Your task to perform on an android device: change the clock style Image 0: 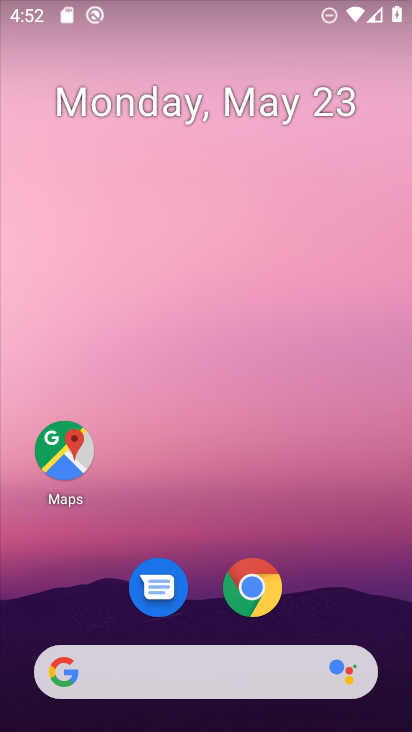
Step 0: drag from (216, 628) to (261, 25)
Your task to perform on an android device: change the clock style Image 1: 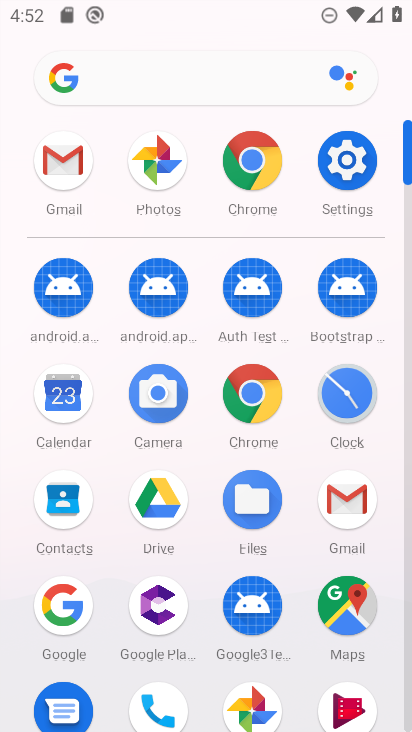
Step 1: click (355, 411)
Your task to perform on an android device: change the clock style Image 2: 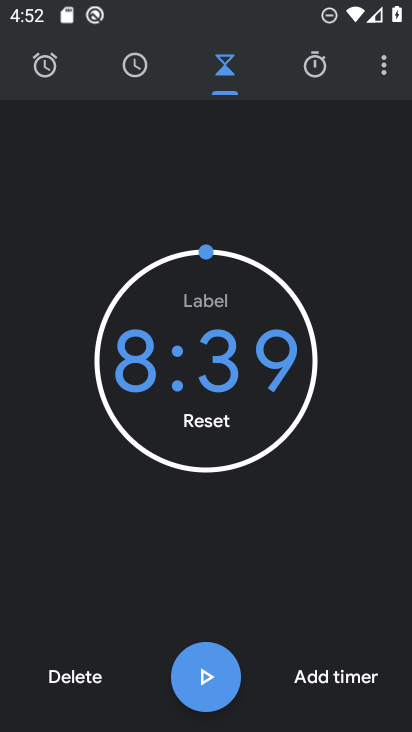
Step 2: click (388, 68)
Your task to perform on an android device: change the clock style Image 3: 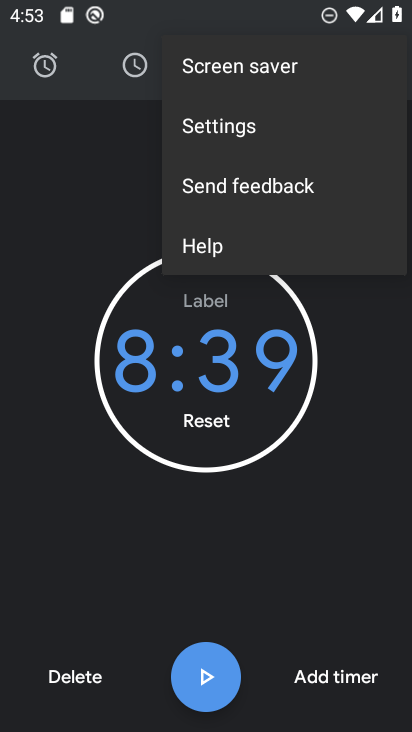
Step 3: click (236, 133)
Your task to perform on an android device: change the clock style Image 4: 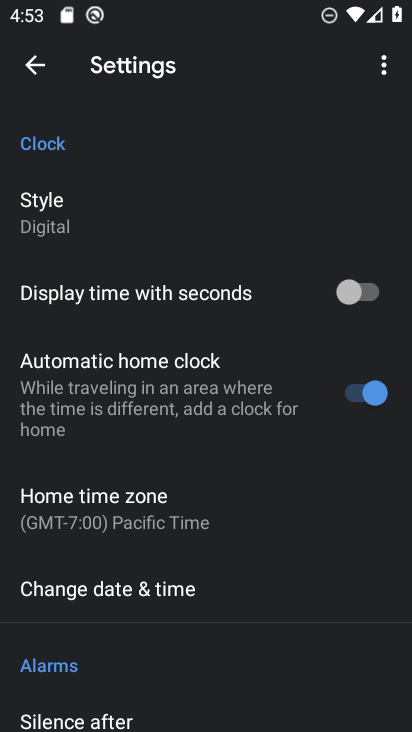
Step 4: click (82, 223)
Your task to perform on an android device: change the clock style Image 5: 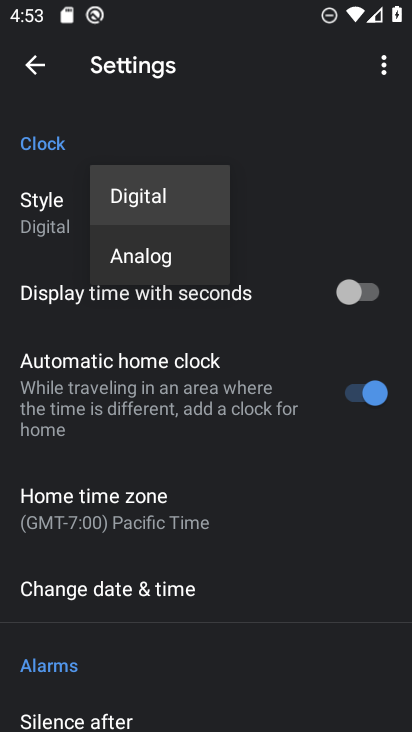
Step 5: click (146, 265)
Your task to perform on an android device: change the clock style Image 6: 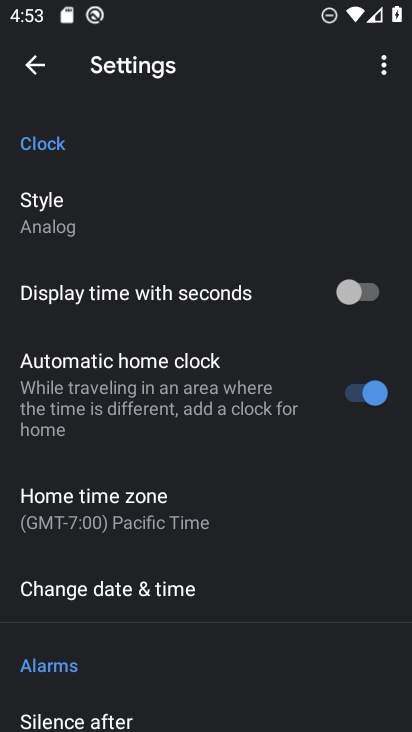
Step 6: task complete